Your task to perform on an android device: Is it going to rain tomorrow? Image 0: 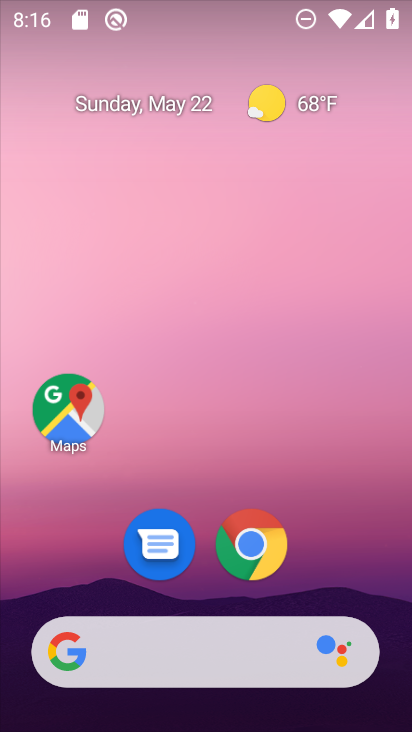
Step 0: click (320, 102)
Your task to perform on an android device: Is it going to rain tomorrow? Image 1: 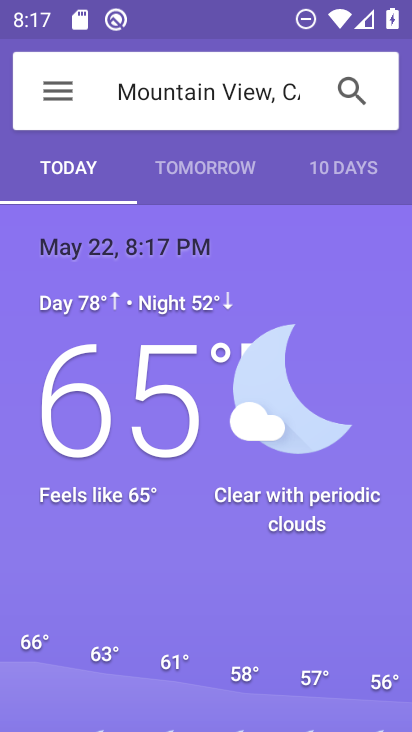
Step 1: click (172, 173)
Your task to perform on an android device: Is it going to rain tomorrow? Image 2: 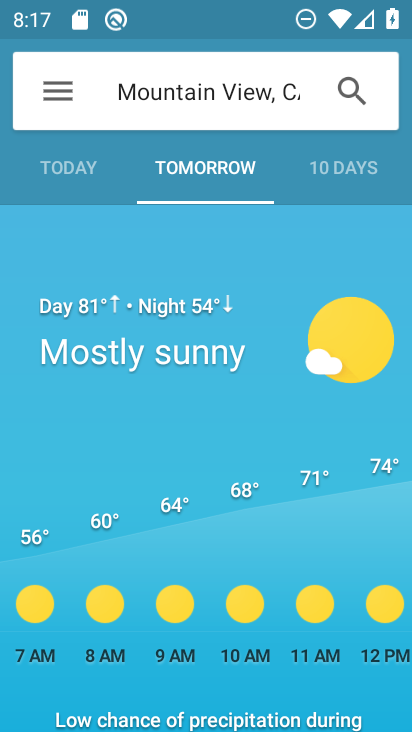
Step 2: task complete